Your task to perform on an android device: Open wifi settings Image 0: 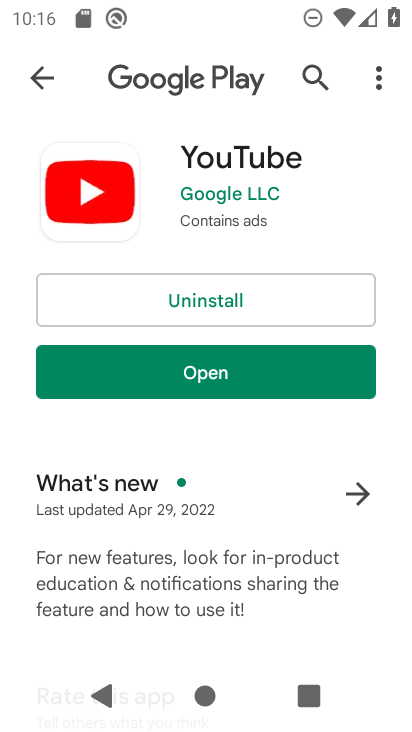
Step 0: press home button
Your task to perform on an android device: Open wifi settings Image 1: 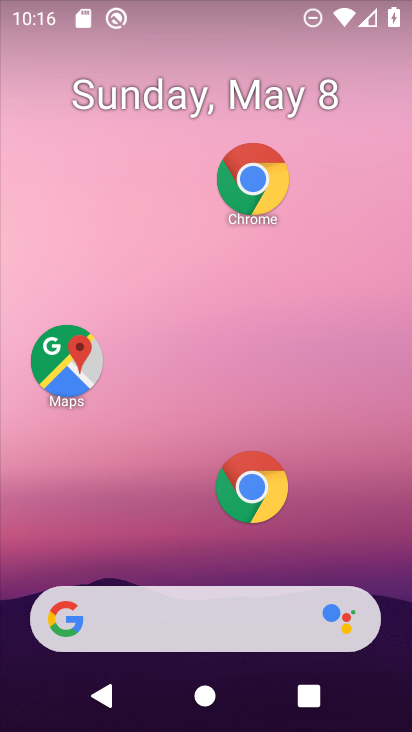
Step 1: drag from (155, 536) to (215, 21)
Your task to perform on an android device: Open wifi settings Image 2: 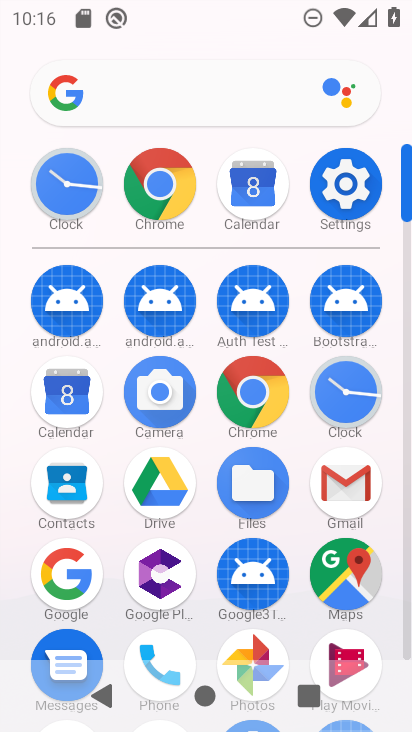
Step 2: click (329, 175)
Your task to perform on an android device: Open wifi settings Image 3: 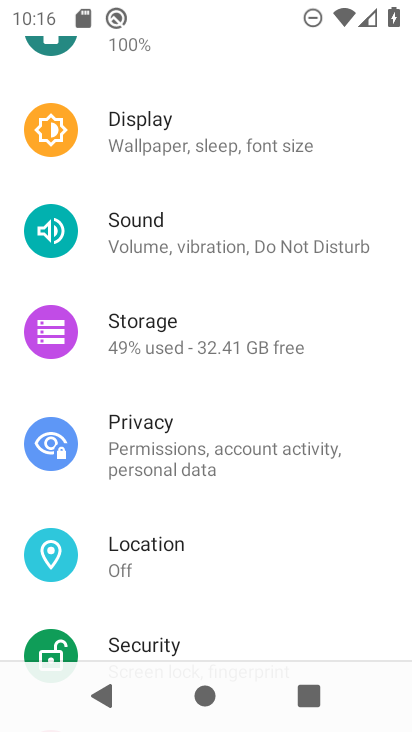
Step 3: drag from (286, 203) to (255, 683)
Your task to perform on an android device: Open wifi settings Image 4: 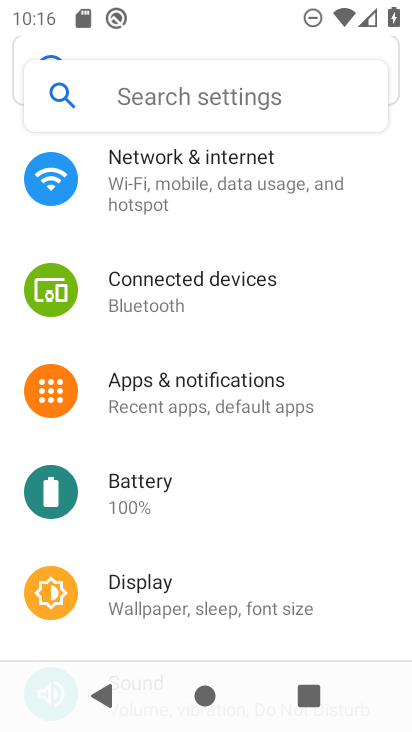
Step 4: drag from (250, 237) to (261, 618)
Your task to perform on an android device: Open wifi settings Image 5: 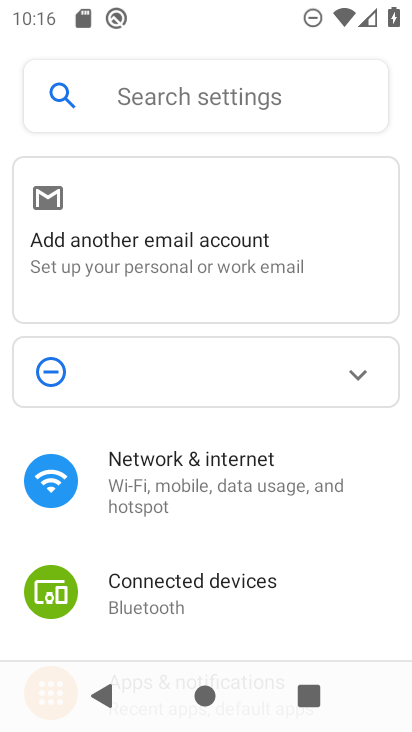
Step 5: click (219, 469)
Your task to perform on an android device: Open wifi settings Image 6: 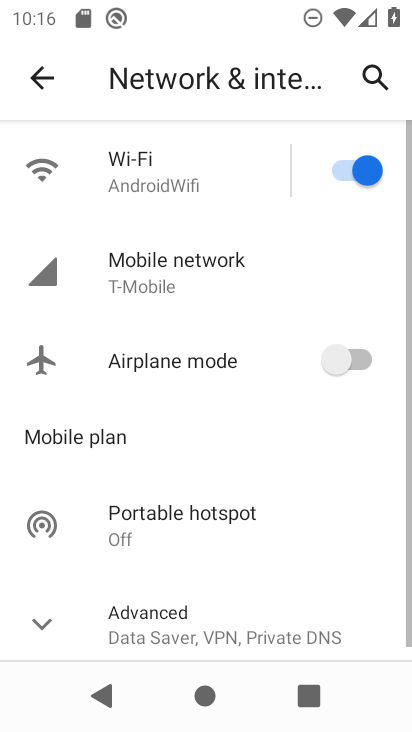
Step 6: click (216, 169)
Your task to perform on an android device: Open wifi settings Image 7: 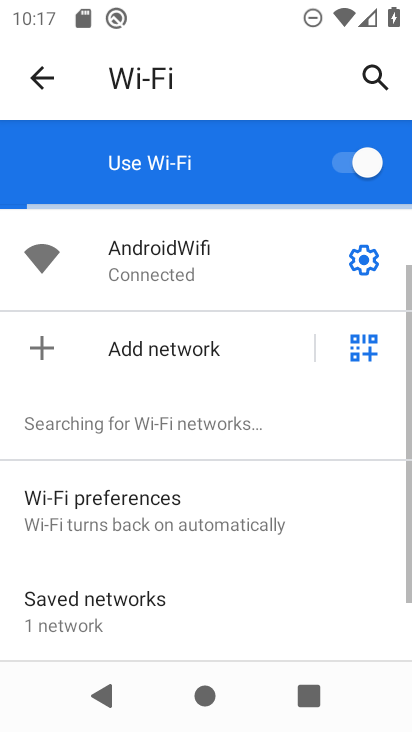
Step 7: task complete